Your task to perform on an android device: What's the time in San Francisco? Image 0: 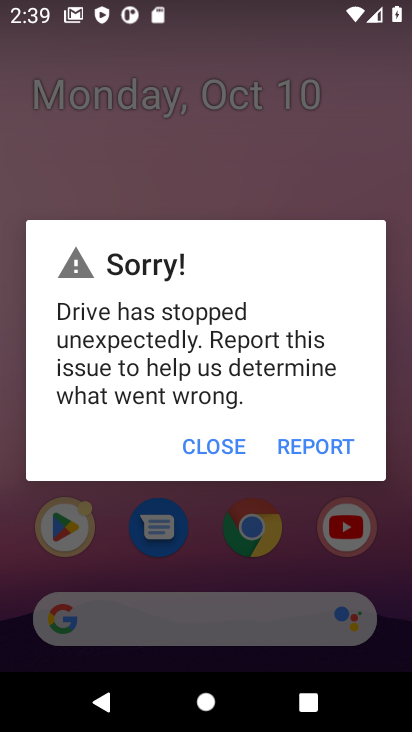
Step 0: press home button
Your task to perform on an android device: What's the time in San Francisco? Image 1: 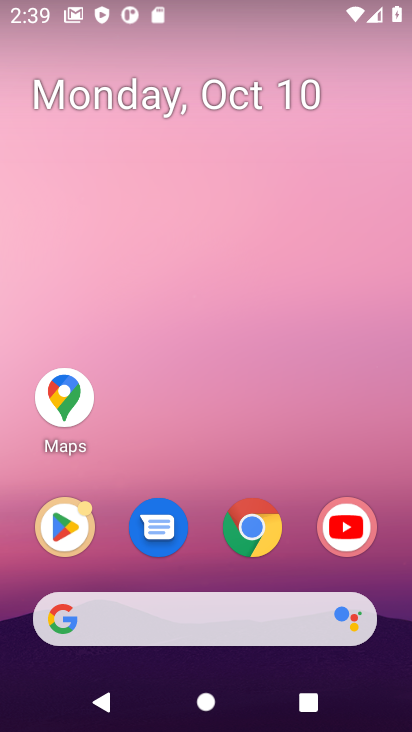
Step 1: click (217, 639)
Your task to perform on an android device: What's the time in San Francisco? Image 2: 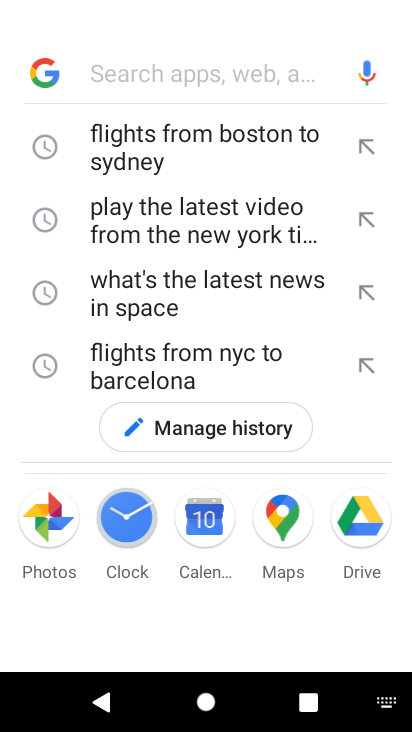
Step 2: type "What's the time in San Francisco"
Your task to perform on an android device: What's the time in San Francisco? Image 3: 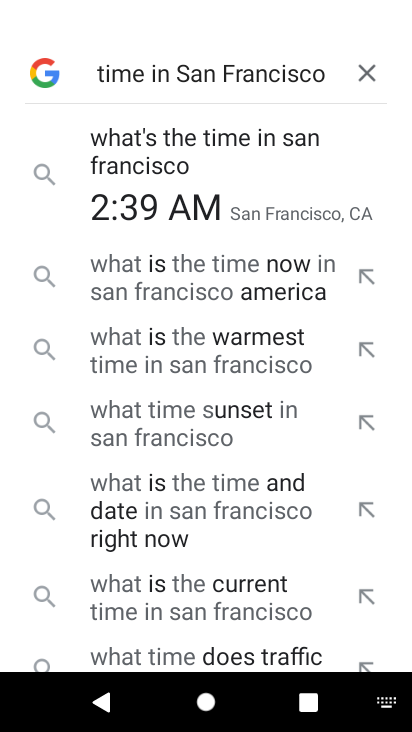
Step 3: press enter
Your task to perform on an android device: What's the time in San Francisco? Image 4: 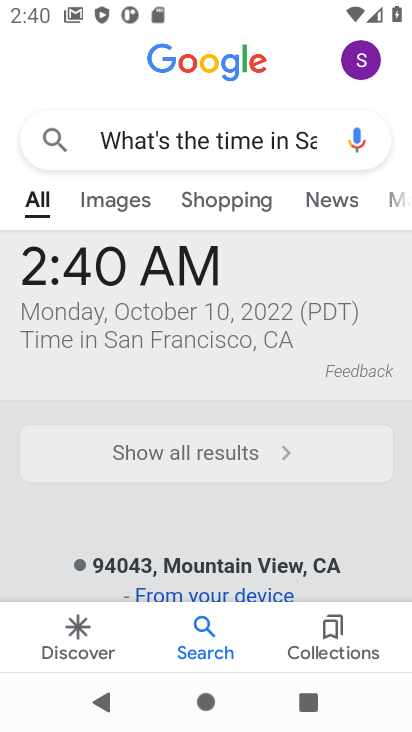
Step 4: task complete